Your task to perform on an android device: turn pop-ups on in chrome Image 0: 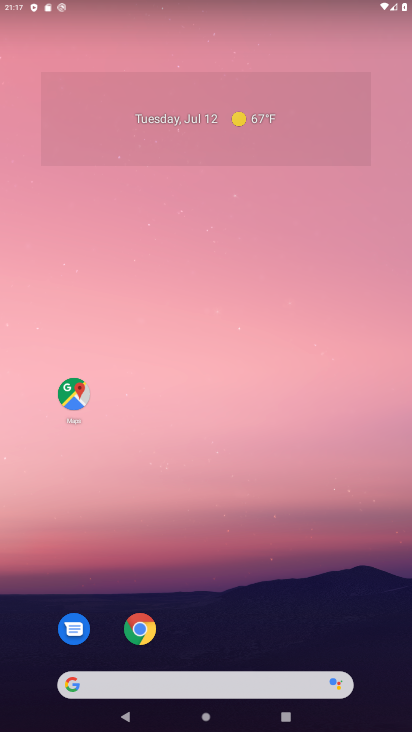
Step 0: click (140, 623)
Your task to perform on an android device: turn pop-ups on in chrome Image 1: 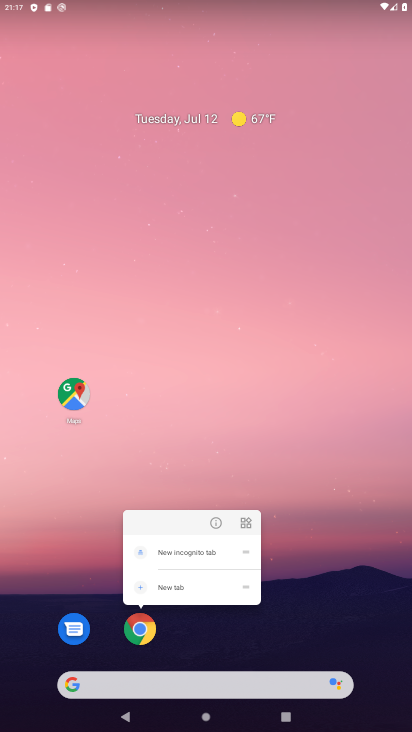
Step 1: click (140, 623)
Your task to perform on an android device: turn pop-ups on in chrome Image 2: 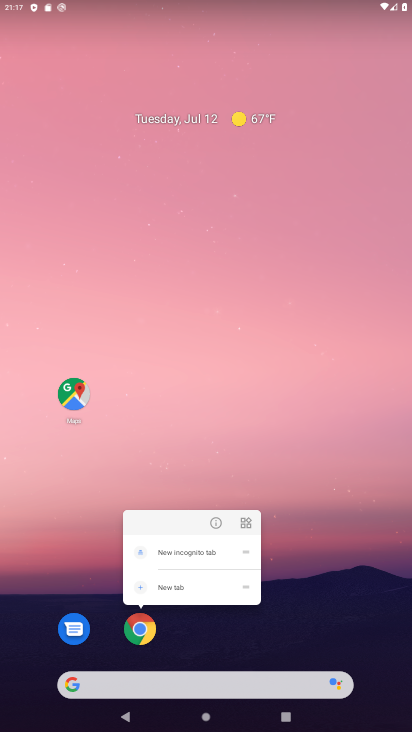
Step 2: click (140, 623)
Your task to perform on an android device: turn pop-ups on in chrome Image 3: 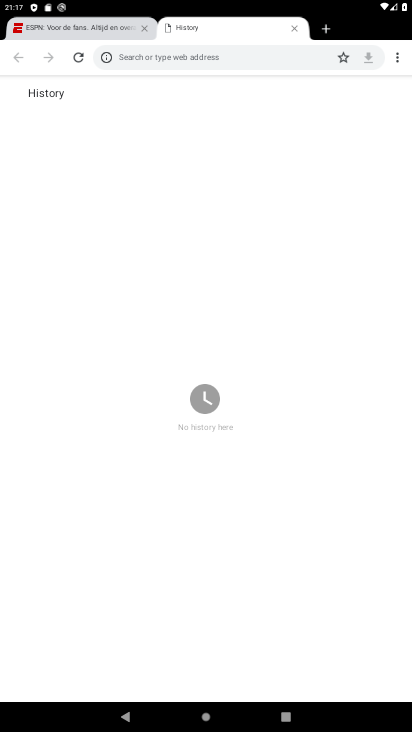
Step 3: click (397, 54)
Your task to perform on an android device: turn pop-ups on in chrome Image 4: 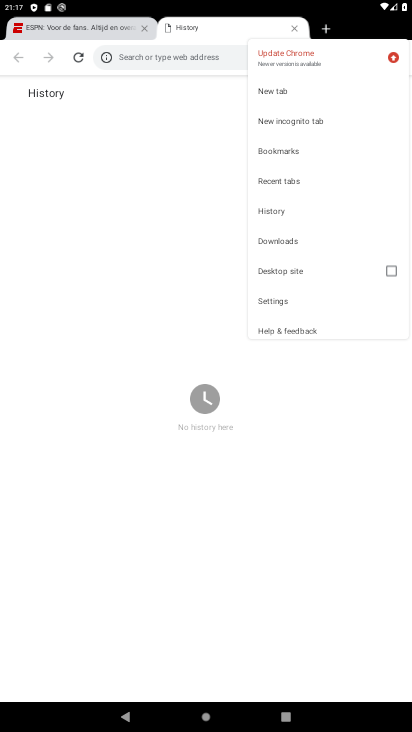
Step 4: click (292, 300)
Your task to perform on an android device: turn pop-ups on in chrome Image 5: 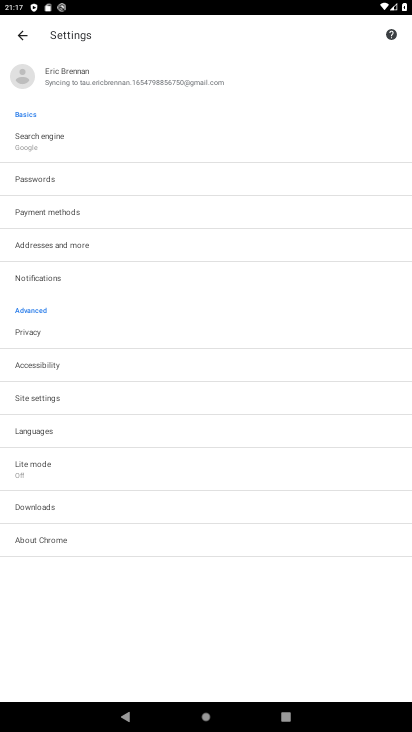
Step 5: click (66, 402)
Your task to perform on an android device: turn pop-ups on in chrome Image 6: 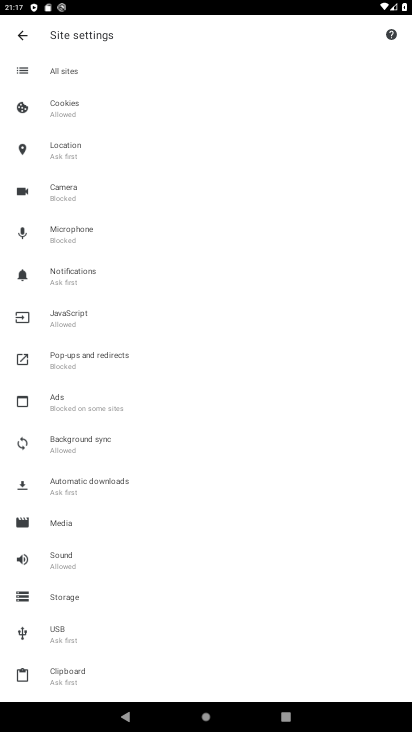
Step 6: click (127, 352)
Your task to perform on an android device: turn pop-ups on in chrome Image 7: 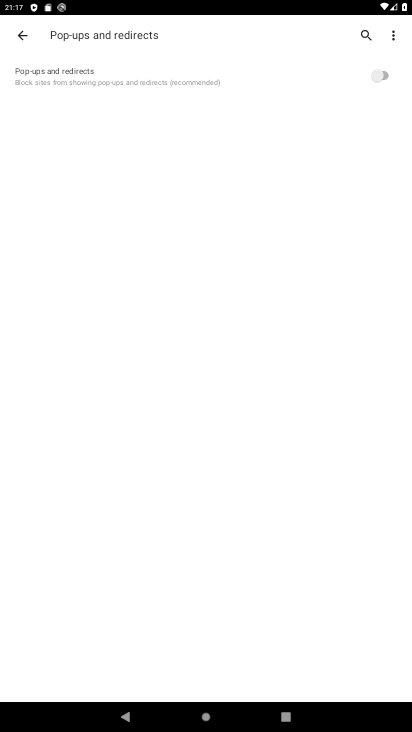
Step 7: click (386, 76)
Your task to perform on an android device: turn pop-ups on in chrome Image 8: 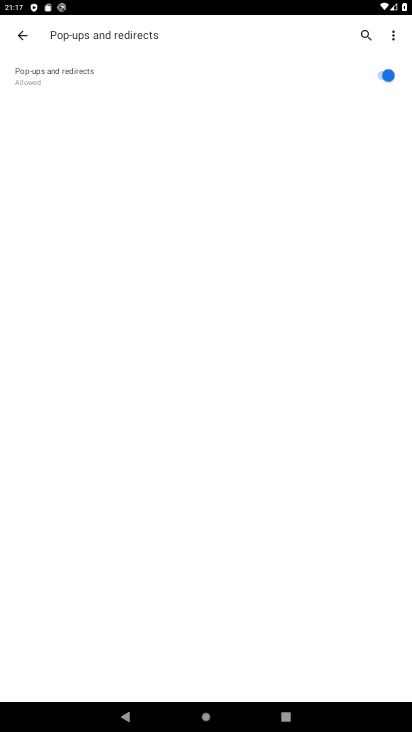
Step 8: task complete